Your task to perform on an android device: Show me the best rated 4K TV on Walmart. Image 0: 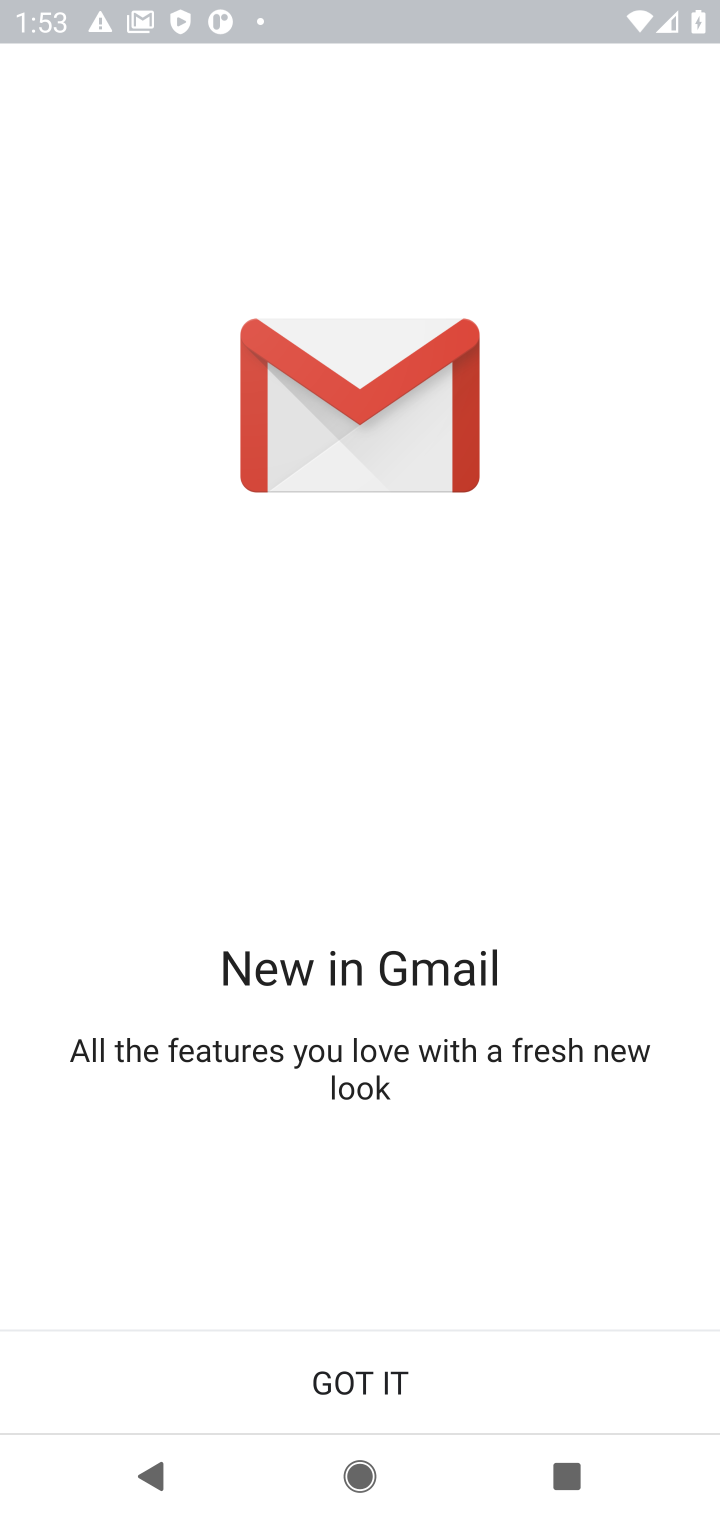
Step 0: press home button
Your task to perform on an android device: Show me the best rated 4K TV on Walmart. Image 1: 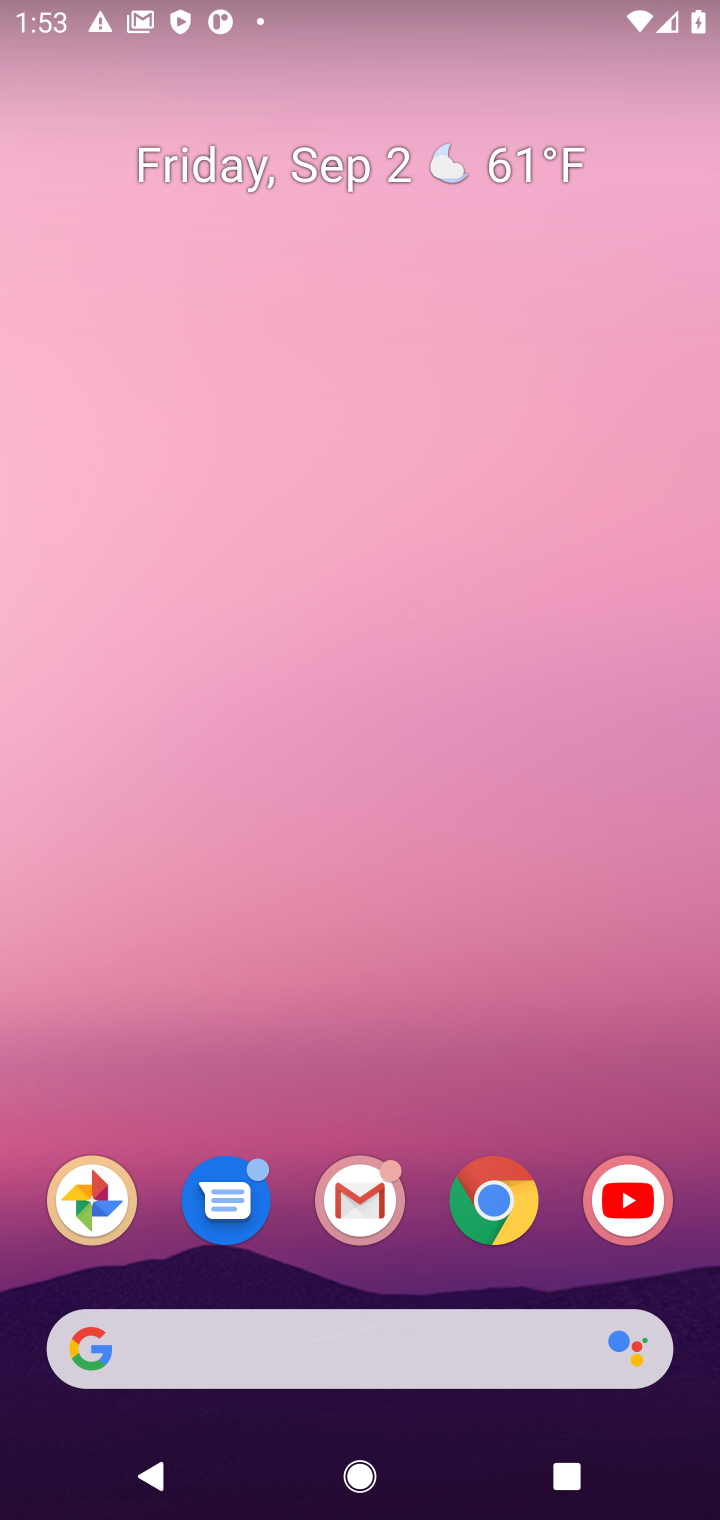
Step 1: click (494, 1195)
Your task to perform on an android device: Show me the best rated 4K TV on Walmart. Image 2: 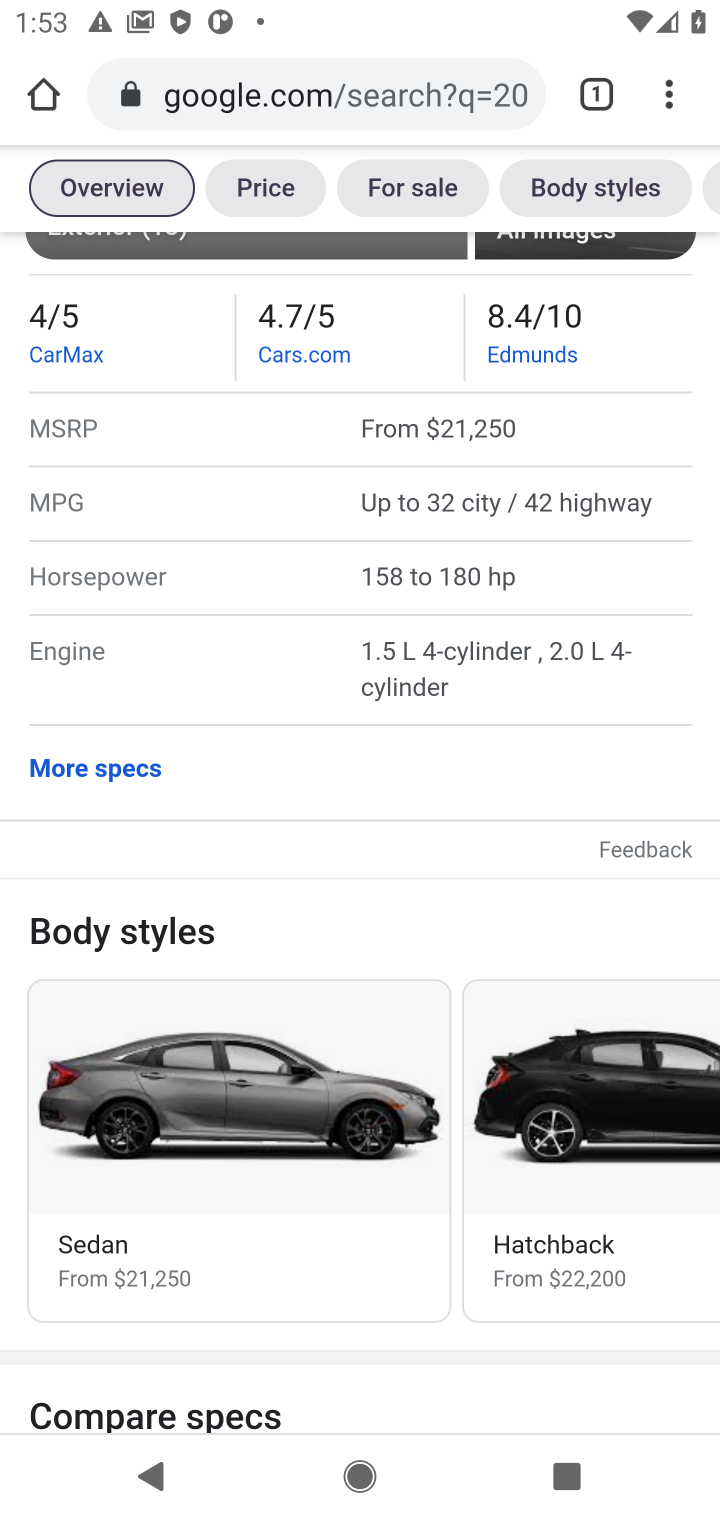
Step 2: click (382, 94)
Your task to perform on an android device: Show me the best rated 4K TV on Walmart. Image 3: 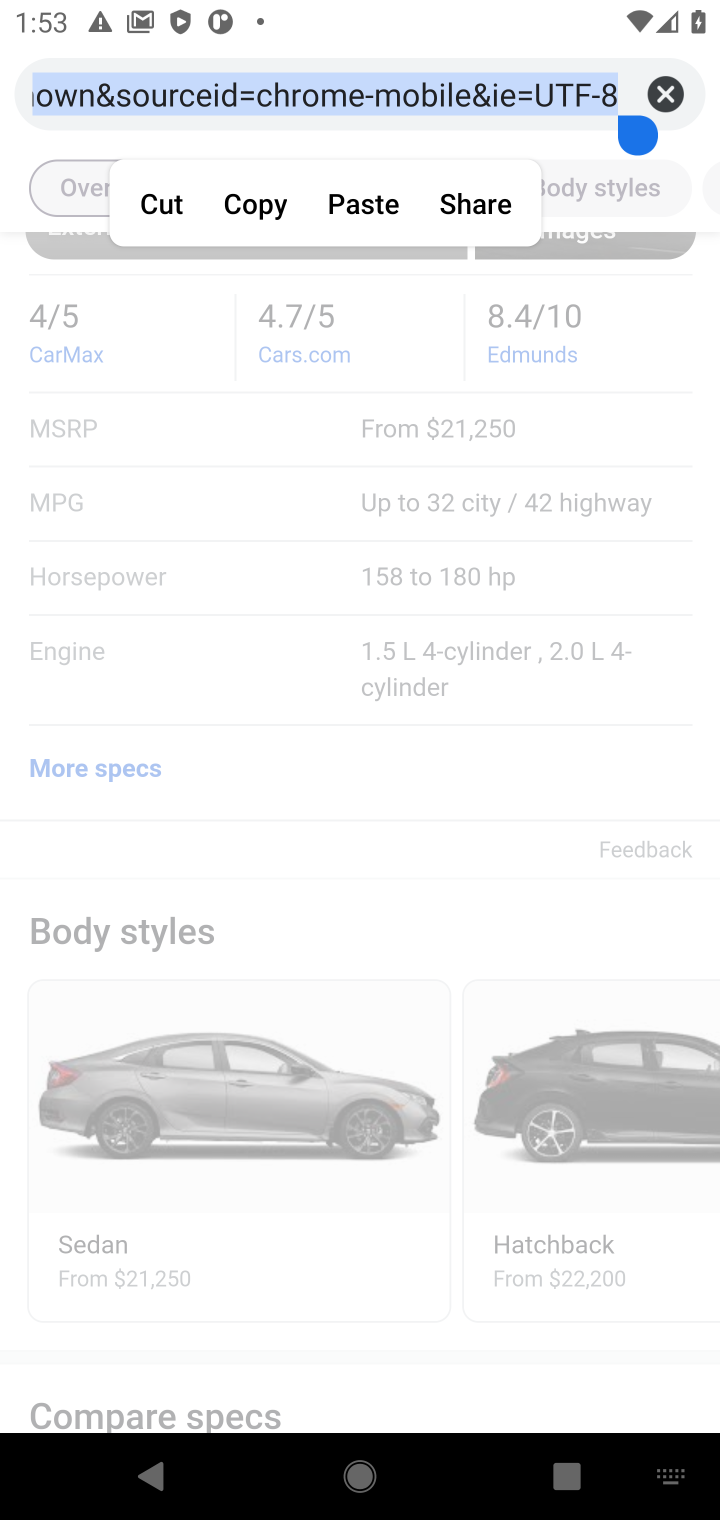
Step 3: click (671, 83)
Your task to perform on an android device: Show me the best rated 4K TV on Walmart. Image 4: 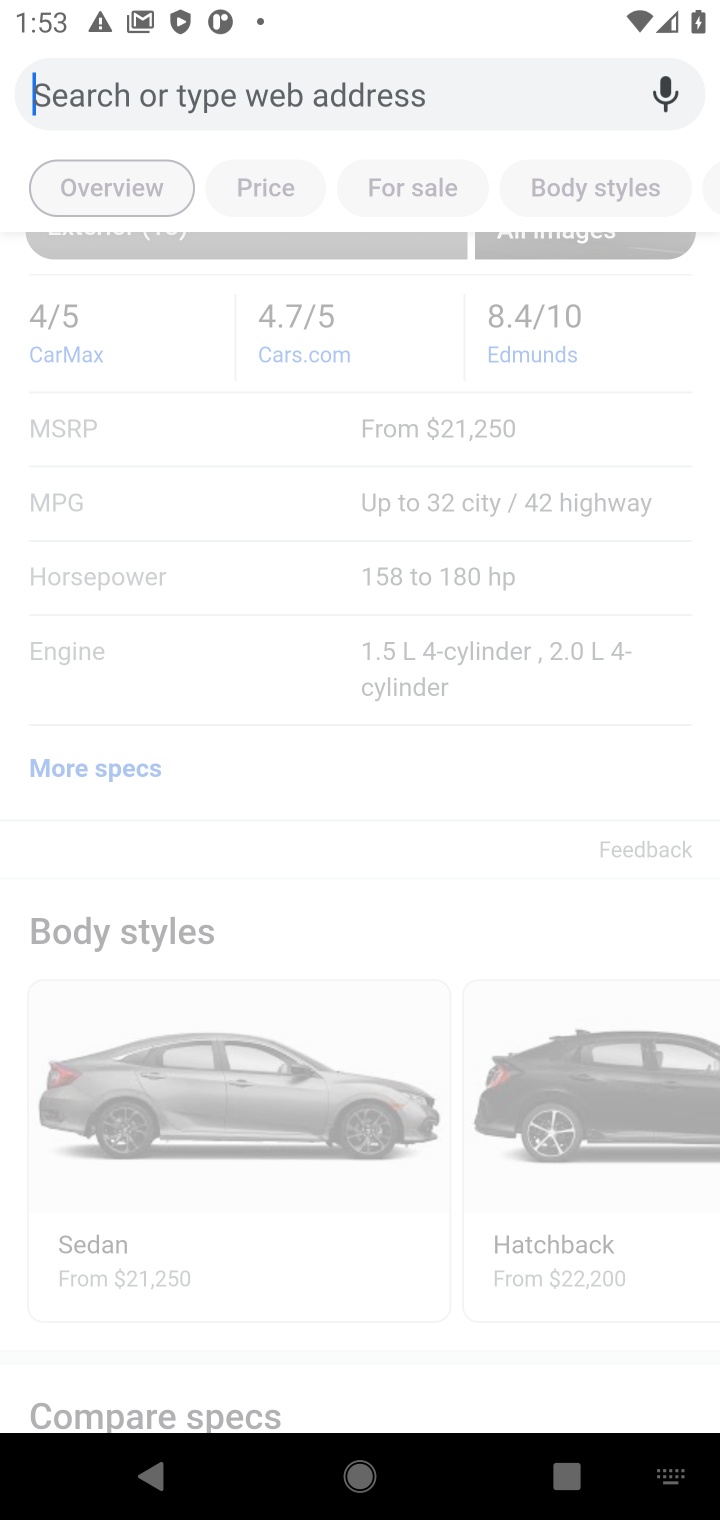
Step 4: type " Walmart"
Your task to perform on an android device: Show me the best rated 4K TV on Walmart. Image 5: 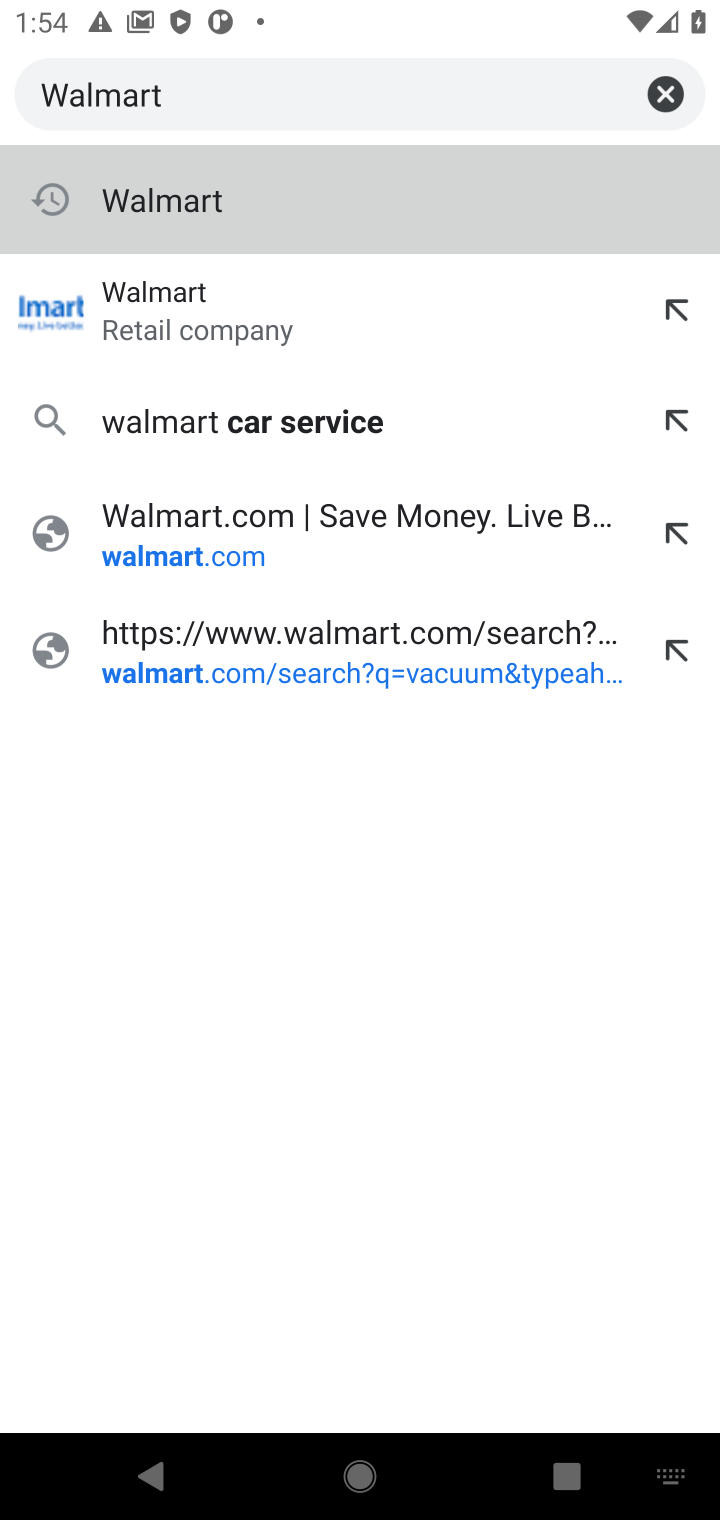
Step 5: press enter
Your task to perform on an android device: Show me the best rated 4K TV on Walmart. Image 6: 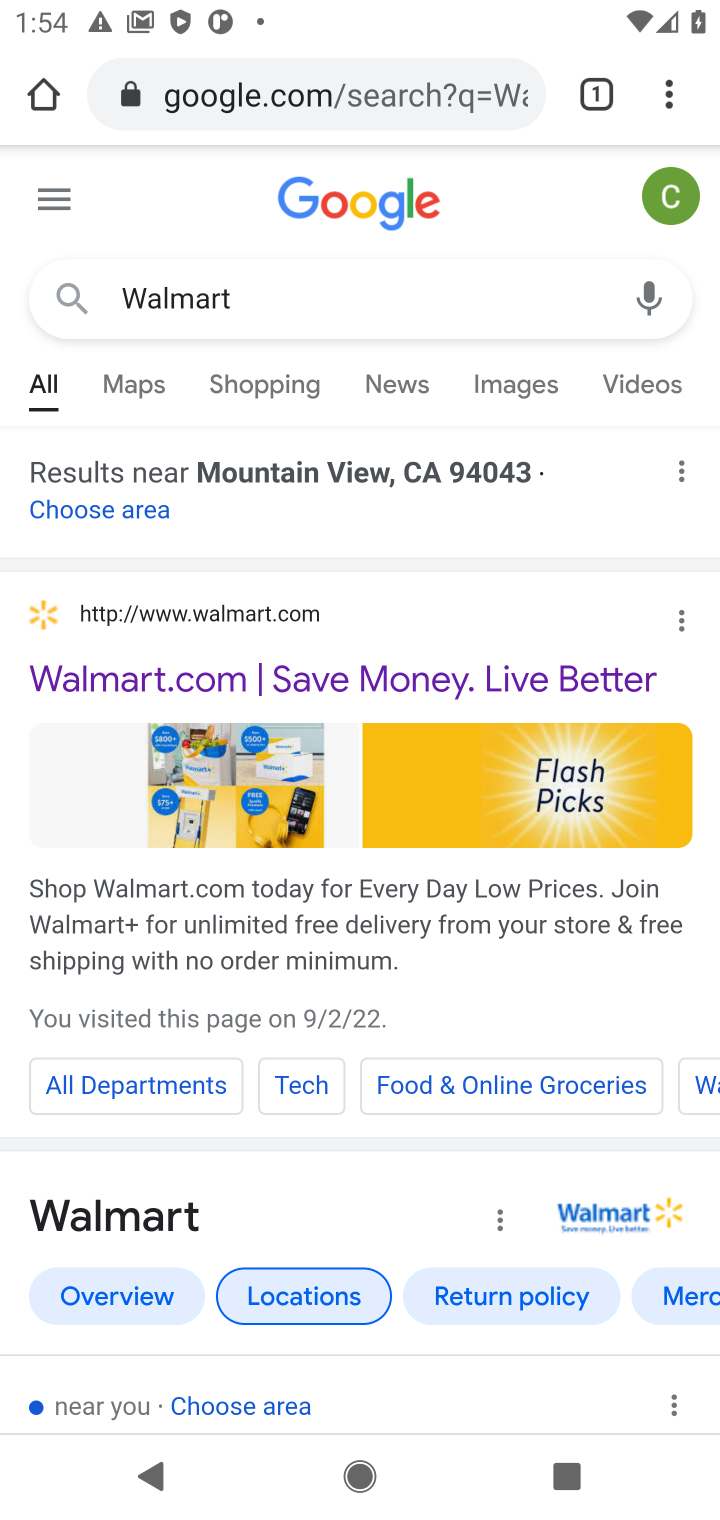
Step 6: drag from (305, 1171) to (543, 529)
Your task to perform on an android device: Show me the best rated 4K TV on Walmart. Image 7: 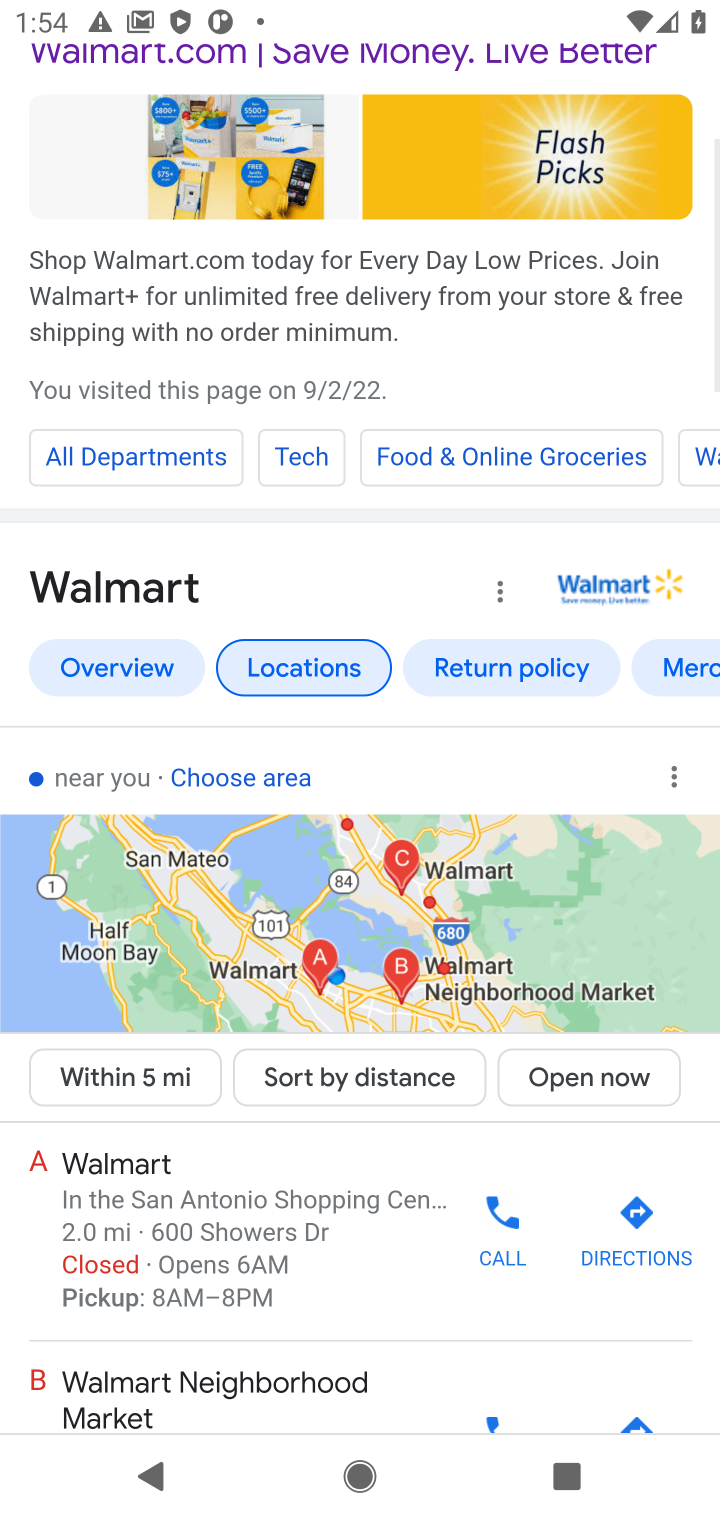
Step 7: drag from (354, 441) to (359, 1158)
Your task to perform on an android device: Show me the best rated 4K TV on Walmart. Image 8: 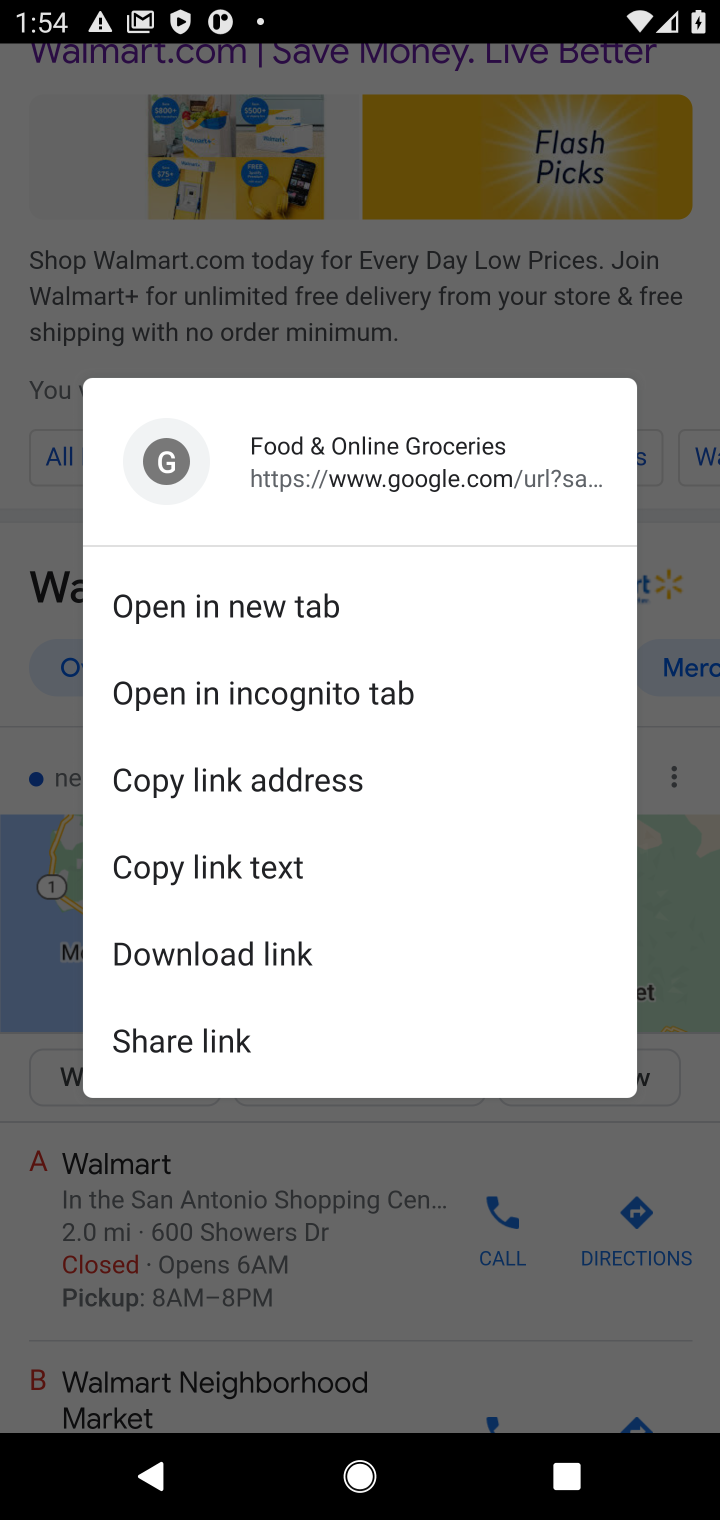
Step 8: click (473, 1226)
Your task to perform on an android device: Show me the best rated 4K TV on Walmart. Image 9: 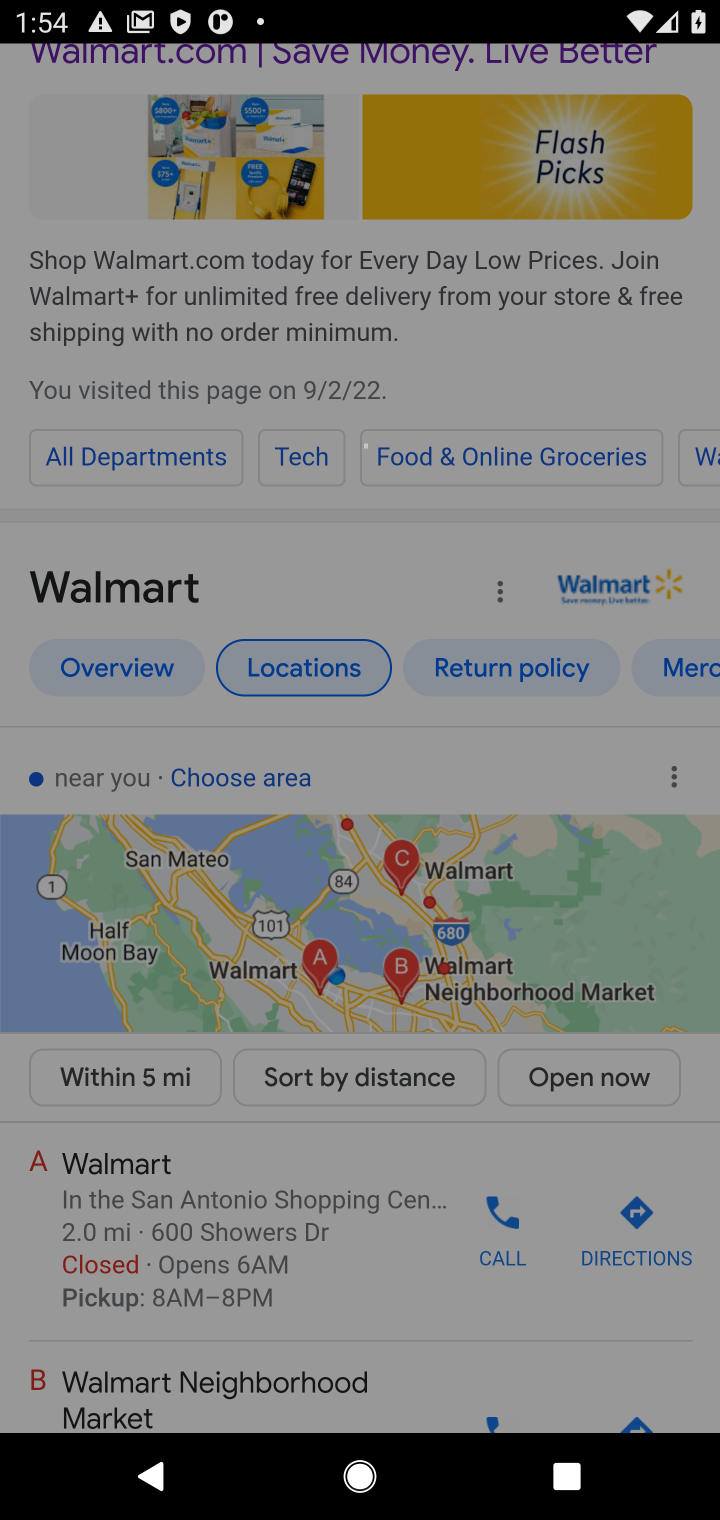
Step 9: drag from (581, 607) to (444, 1258)
Your task to perform on an android device: Show me the best rated 4K TV on Walmart. Image 10: 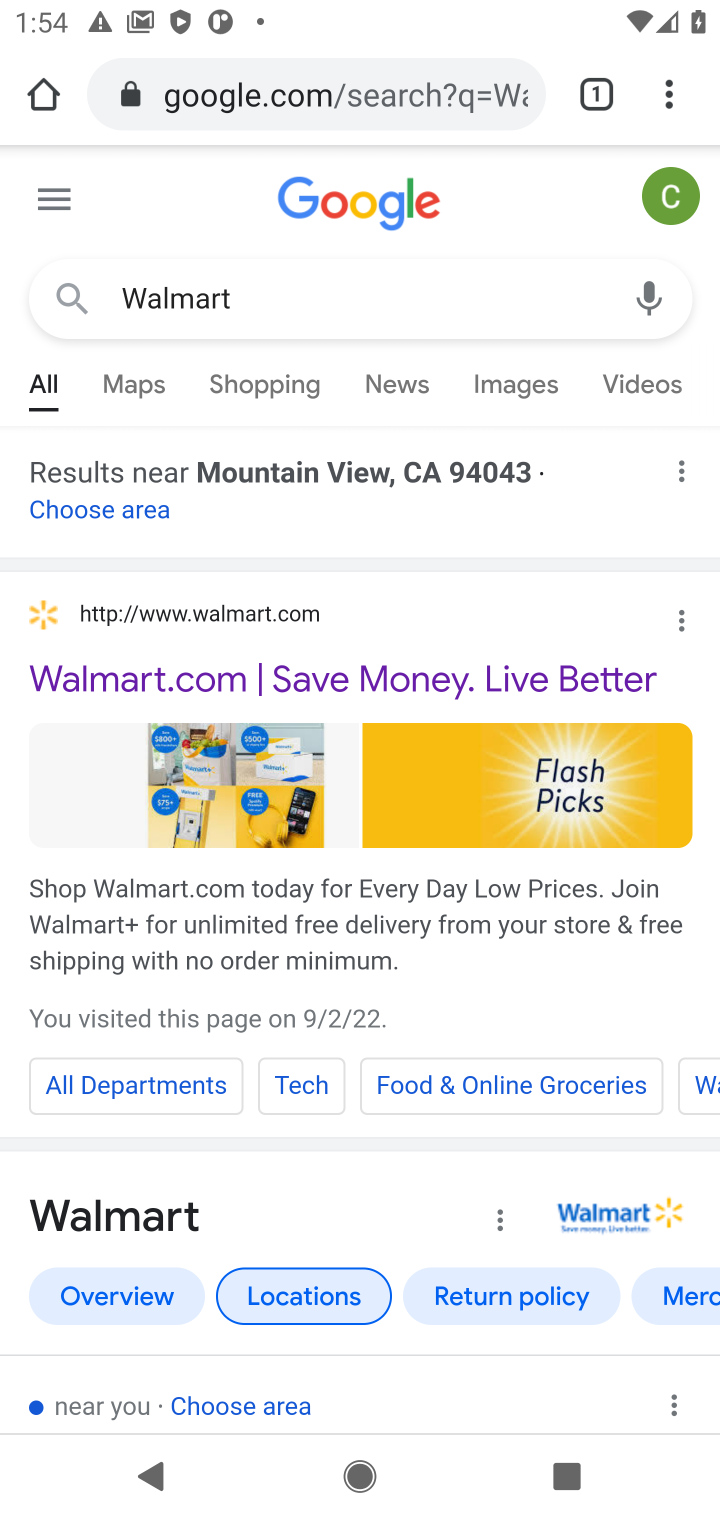
Step 10: click (144, 675)
Your task to perform on an android device: Show me the best rated 4K TV on Walmart. Image 11: 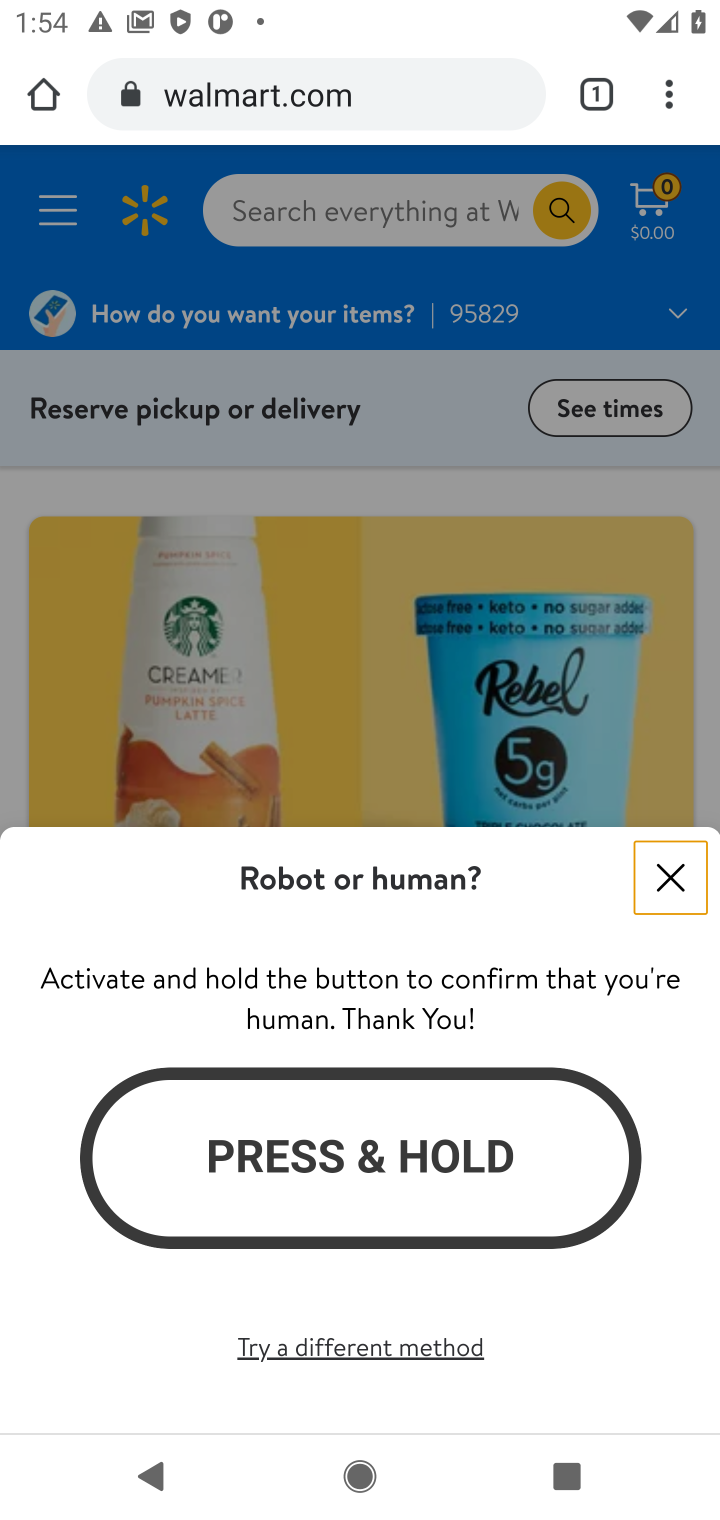
Step 11: click (669, 879)
Your task to perform on an android device: Show me the best rated 4K TV on Walmart. Image 12: 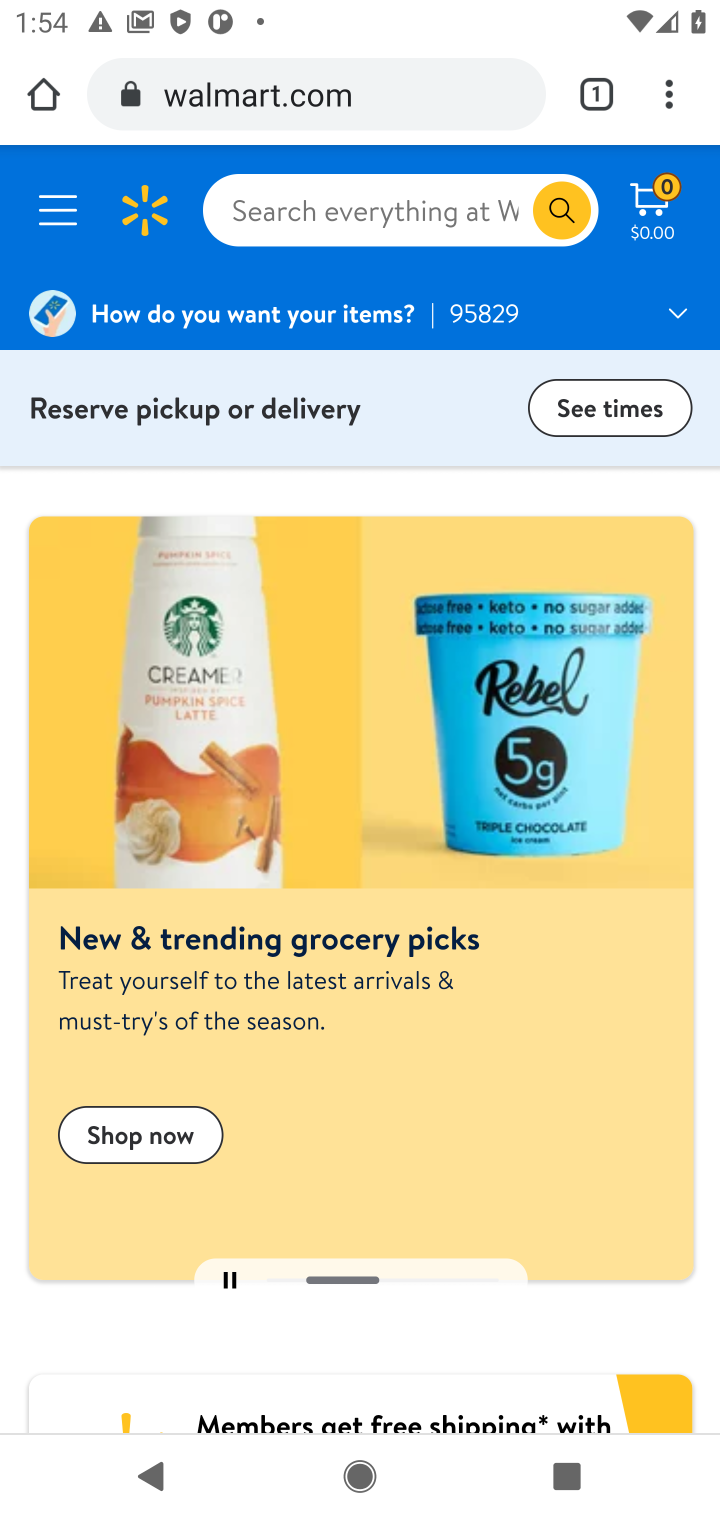
Step 12: click (311, 222)
Your task to perform on an android device: Show me the best rated 4K TV on Walmart. Image 13: 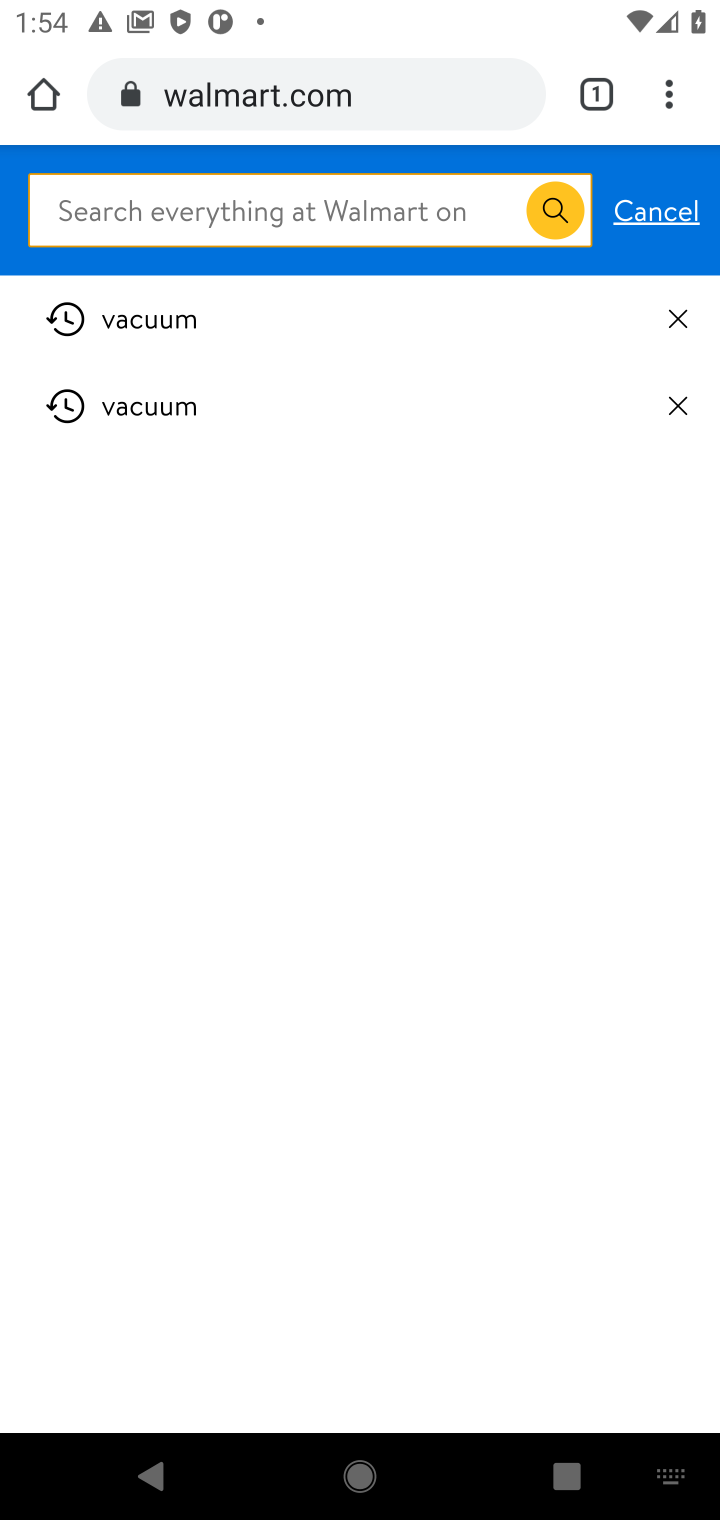
Step 13: type "4K TV "
Your task to perform on an android device: Show me the best rated 4K TV on Walmart. Image 14: 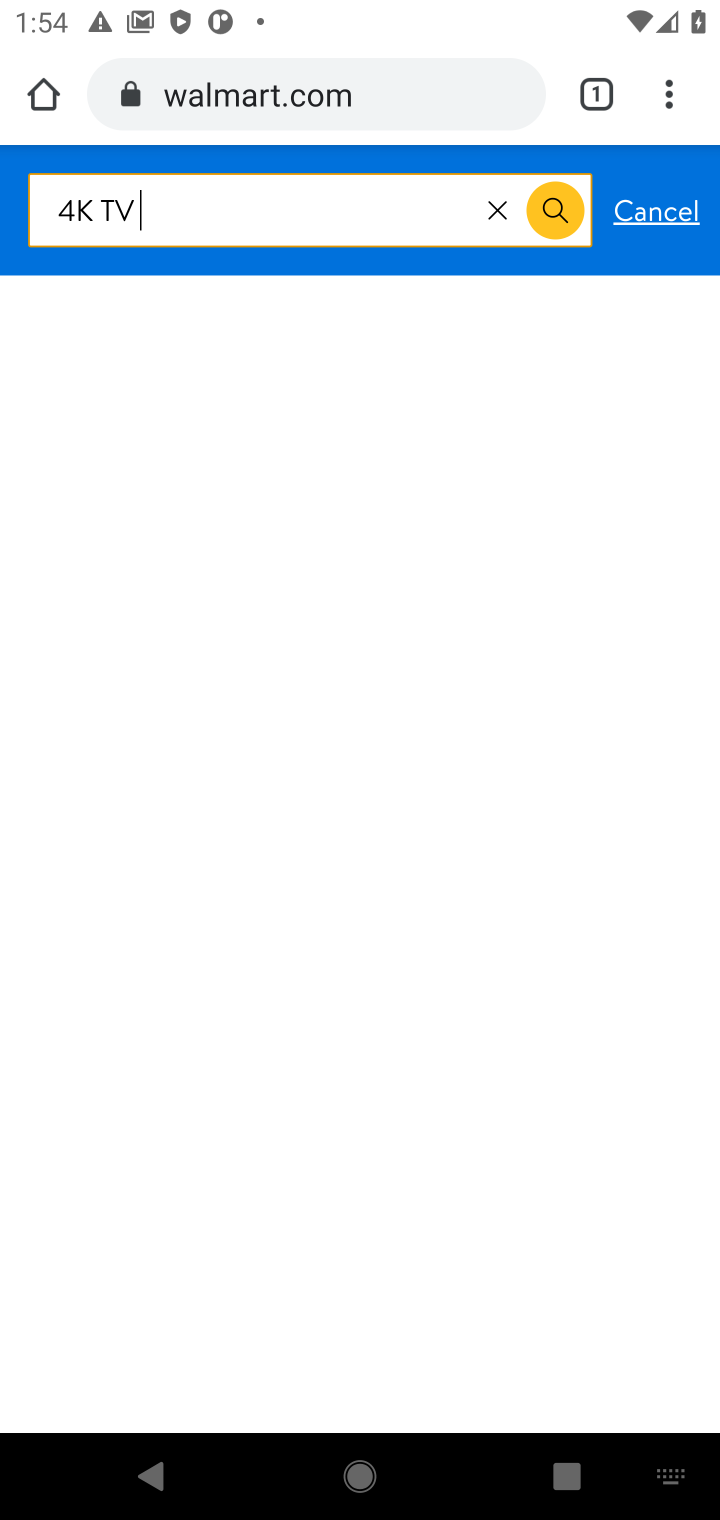
Step 14: press enter
Your task to perform on an android device: Show me the best rated 4K TV on Walmart. Image 15: 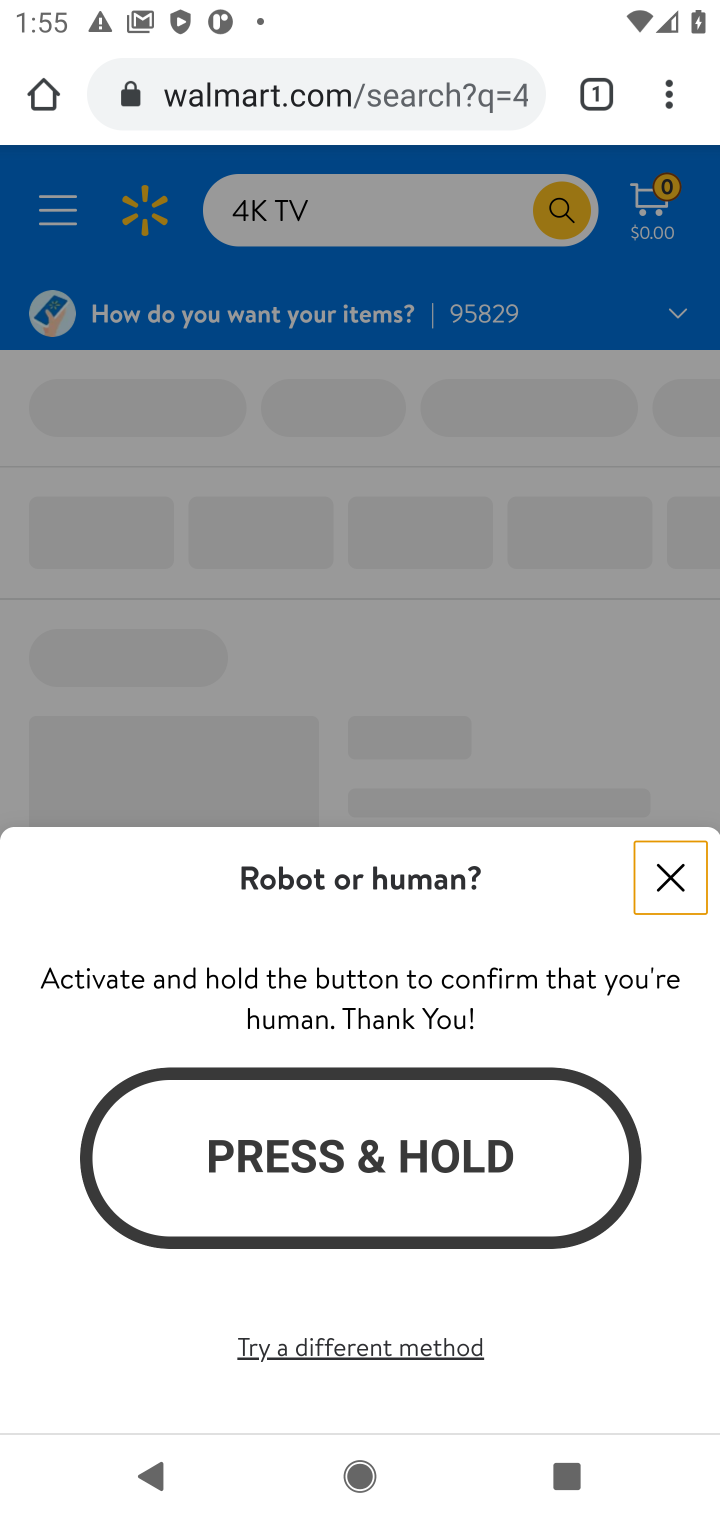
Step 15: click (395, 1149)
Your task to perform on an android device: Show me the best rated 4K TV on Walmart. Image 16: 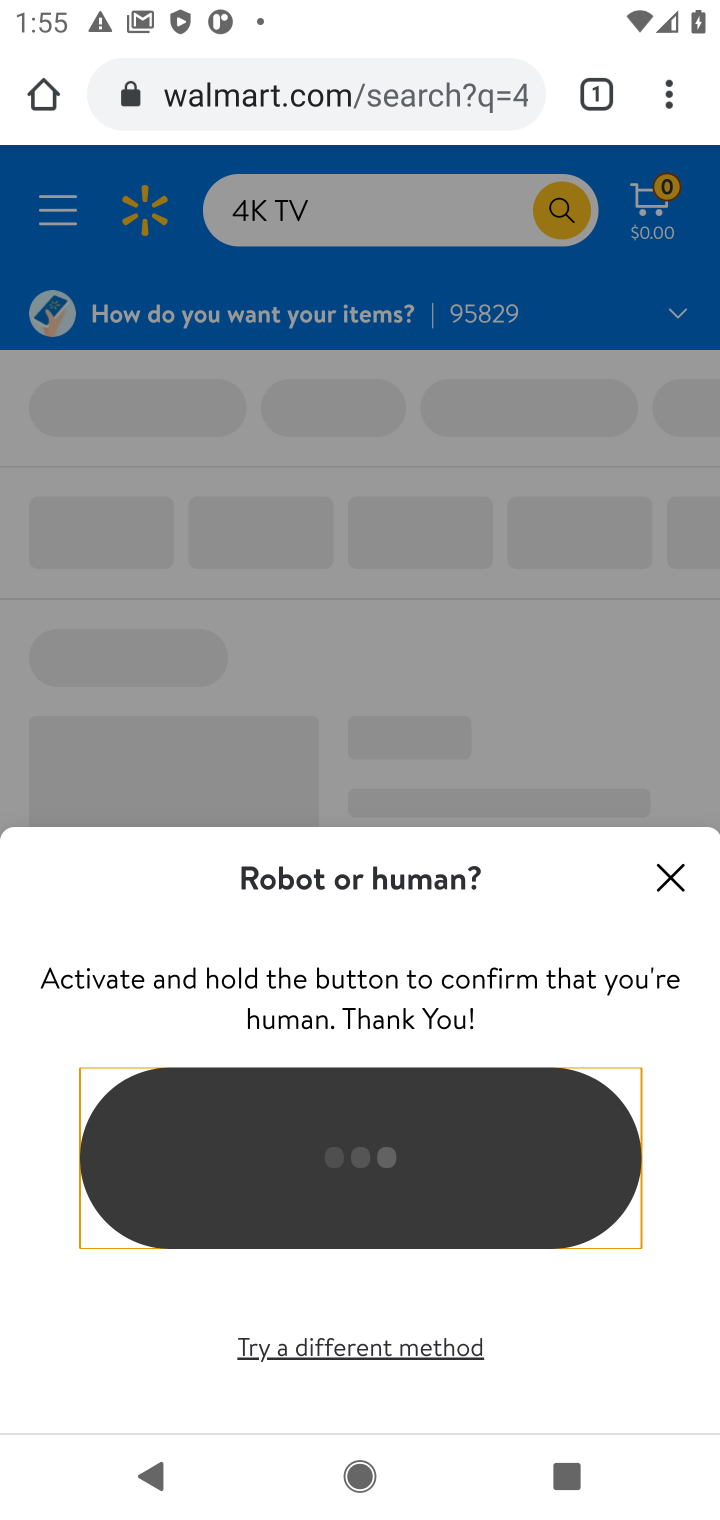
Step 16: click (673, 874)
Your task to perform on an android device: Show me the best rated 4K TV on Walmart. Image 17: 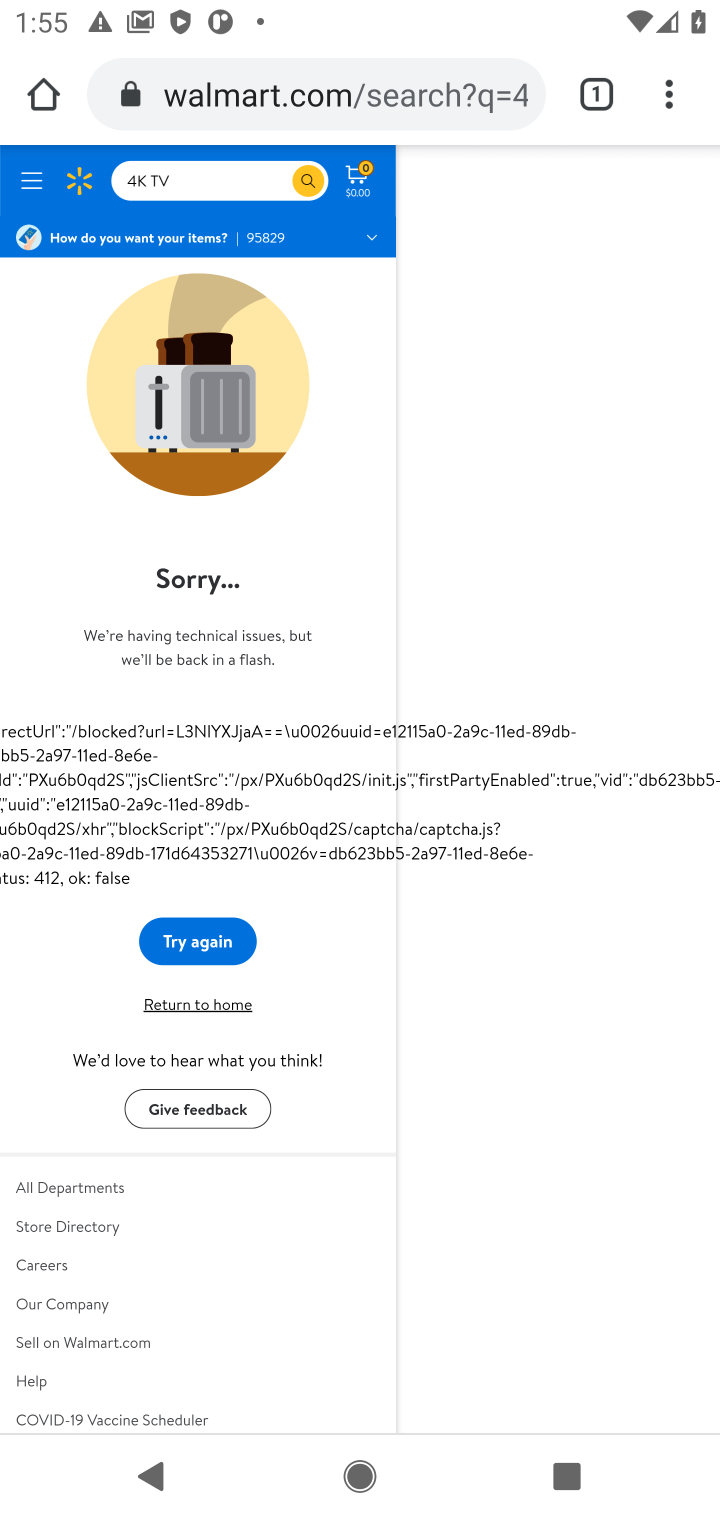
Step 17: task complete